Your task to perform on an android device: Go to accessibility settings Image 0: 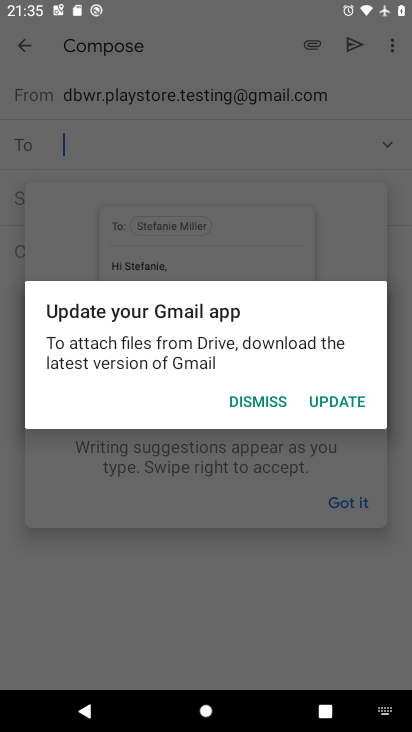
Step 0: press home button
Your task to perform on an android device: Go to accessibility settings Image 1: 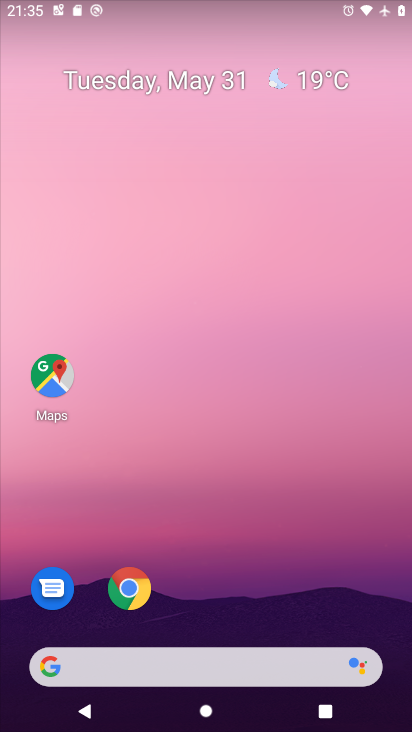
Step 1: drag from (199, 661) to (305, 150)
Your task to perform on an android device: Go to accessibility settings Image 2: 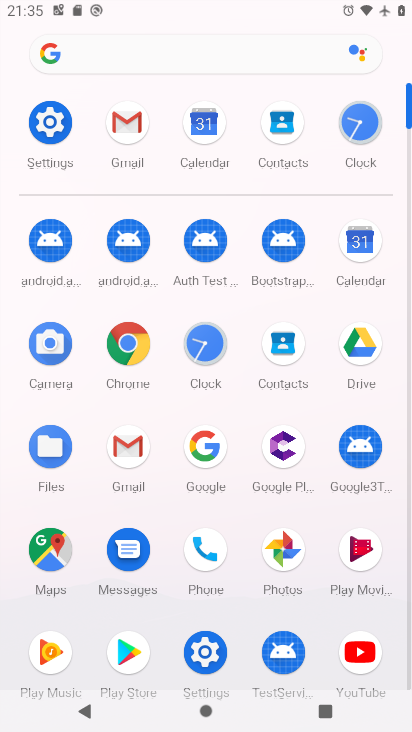
Step 2: click (53, 118)
Your task to perform on an android device: Go to accessibility settings Image 3: 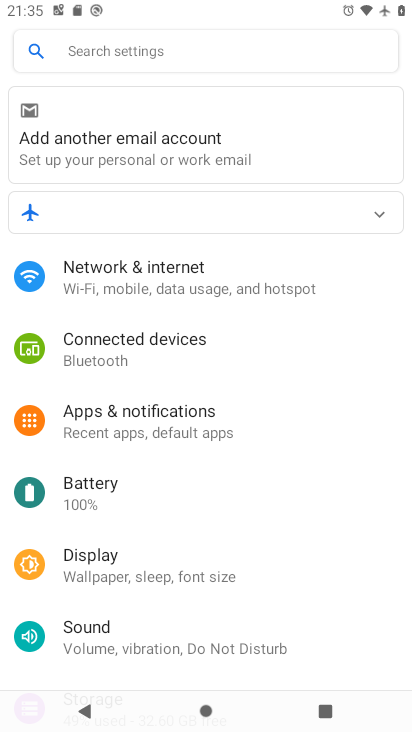
Step 3: drag from (274, 622) to (349, 70)
Your task to perform on an android device: Go to accessibility settings Image 4: 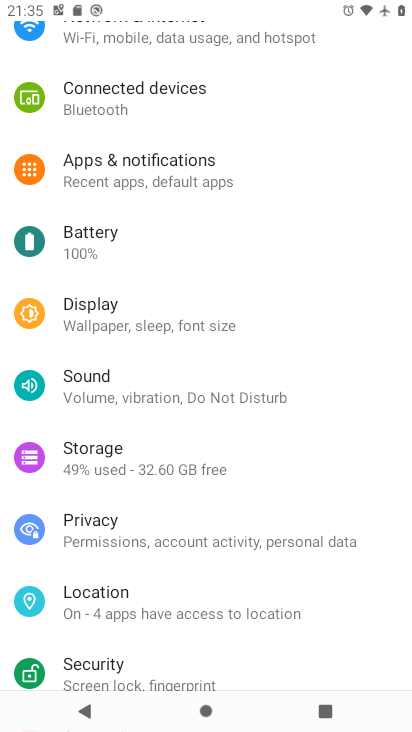
Step 4: drag from (220, 654) to (287, 208)
Your task to perform on an android device: Go to accessibility settings Image 5: 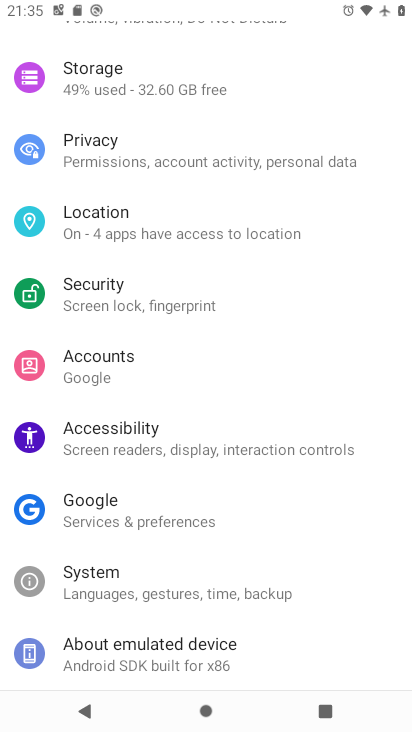
Step 5: click (118, 437)
Your task to perform on an android device: Go to accessibility settings Image 6: 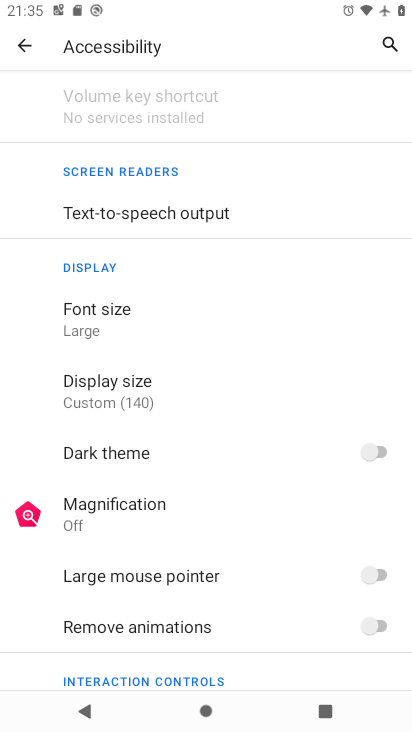
Step 6: task complete